Your task to perform on an android device: refresh tabs in the chrome app Image 0: 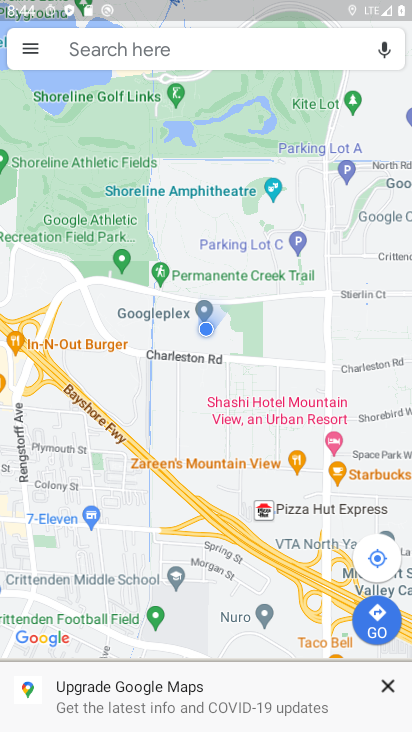
Step 0: press home button
Your task to perform on an android device: refresh tabs in the chrome app Image 1: 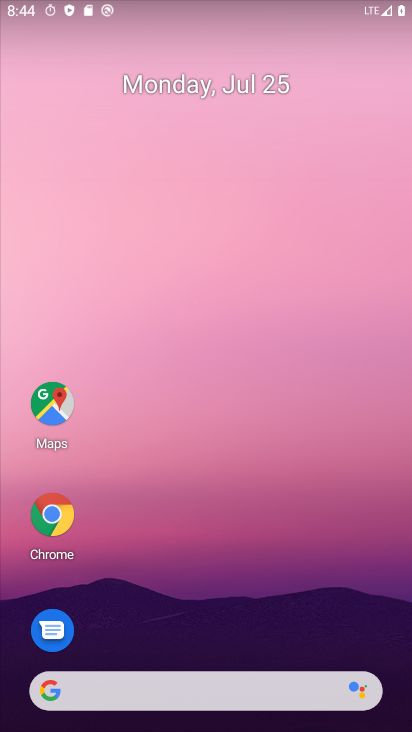
Step 1: click (45, 533)
Your task to perform on an android device: refresh tabs in the chrome app Image 2: 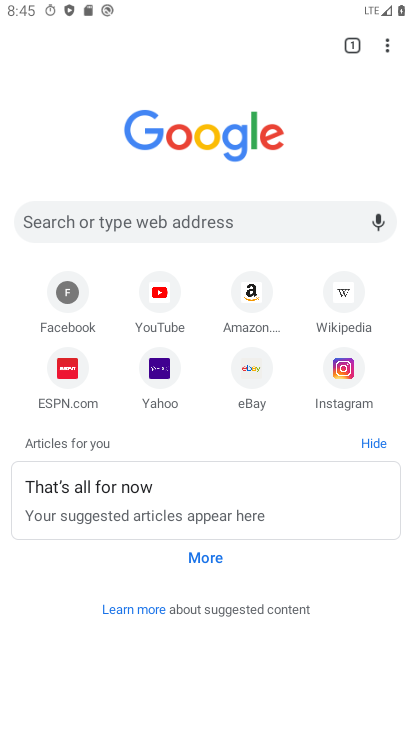
Step 2: click (387, 41)
Your task to perform on an android device: refresh tabs in the chrome app Image 3: 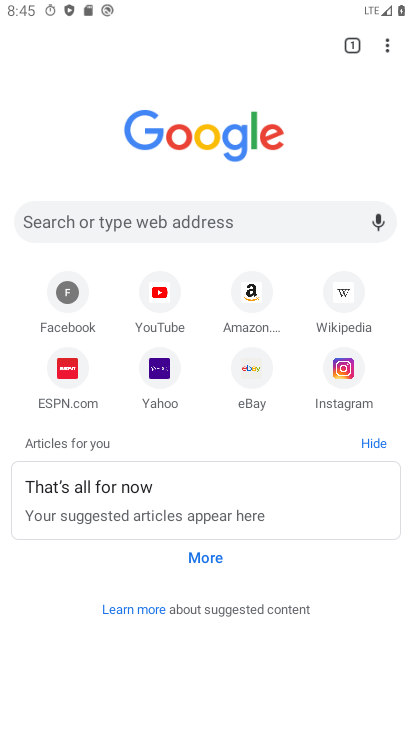
Step 3: click (386, 44)
Your task to perform on an android device: refresh tabs in the chrome app Image 4: 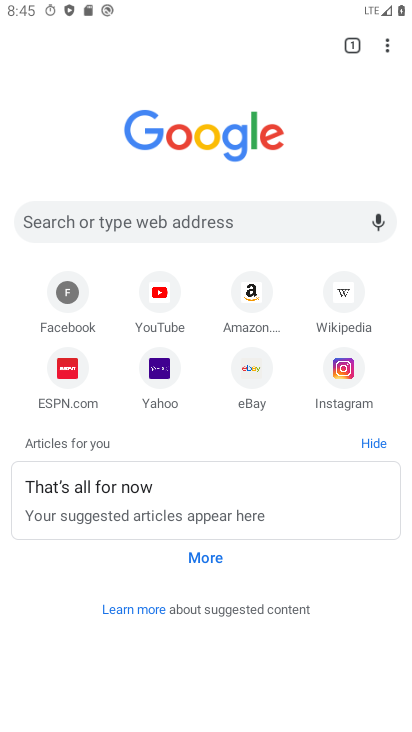
Step 4: click (382, 47)
Your task to perform on an android device: refresh tabs in the chrome app Image 5: 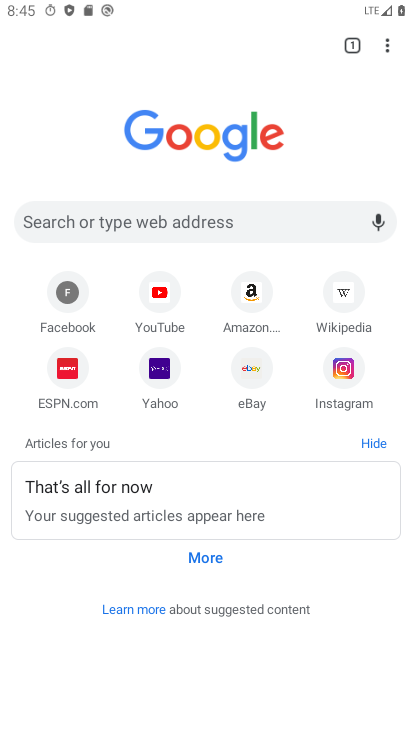
Step 5: click (382, 47)
Your task to perform on an android device: refresh tabs in the chrome app Image 6: 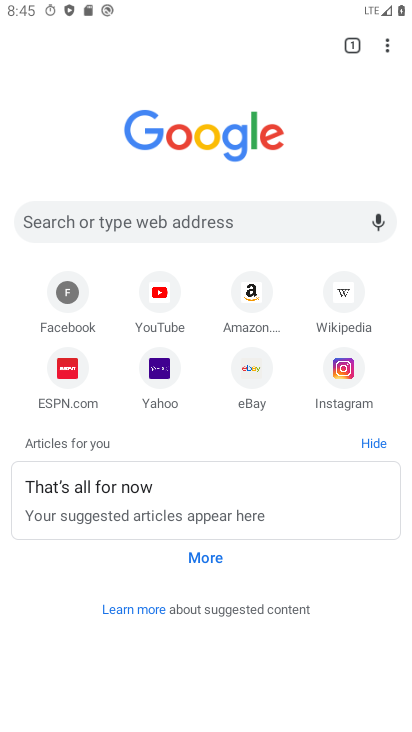
Step 6: task complete